Your task to perform on an android device: Search for asus rog on costco.com, select the first entry, add it to the cart, then select checkout. Image 0: 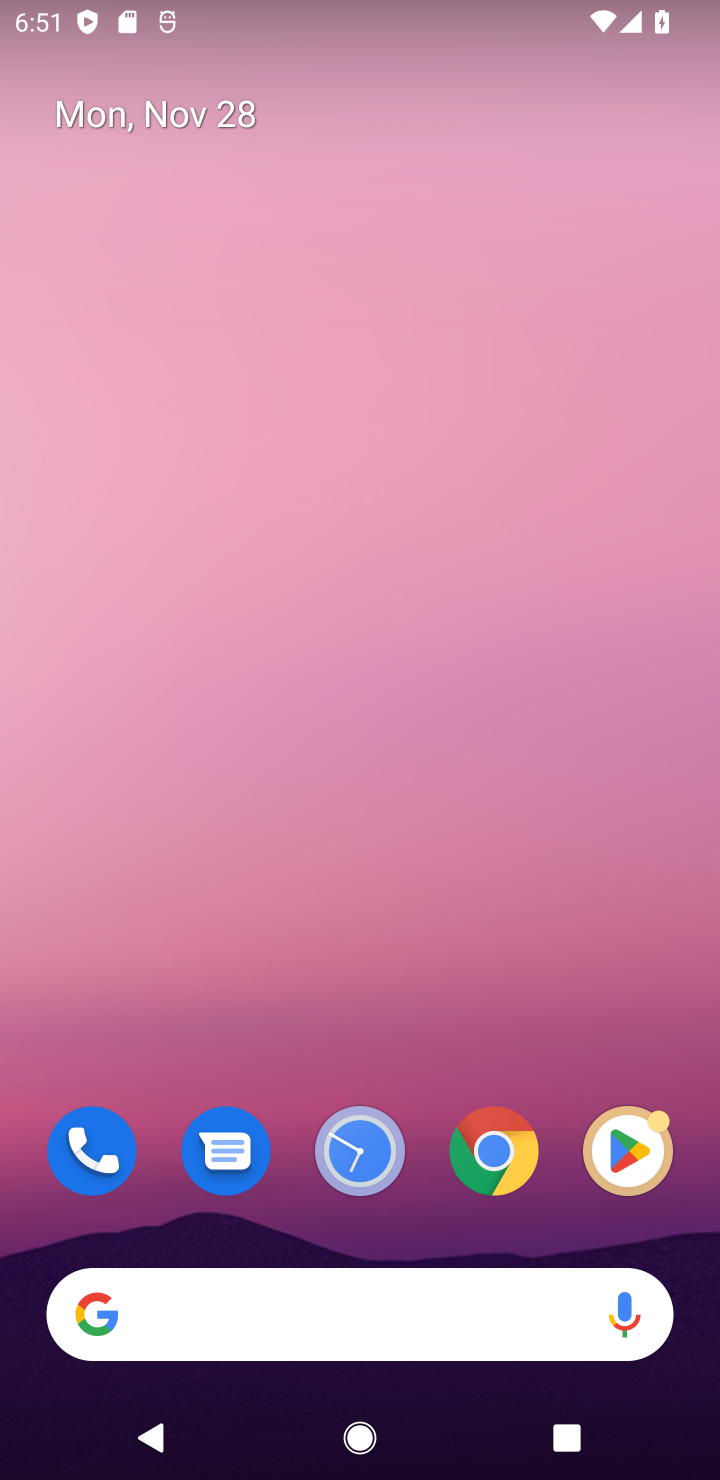
Step 0: click (324, 1357)
Your task to perform on an android device: Search for asus rog on costco.com, select the first entry, add it to the cart, then select checkout. Image 1: 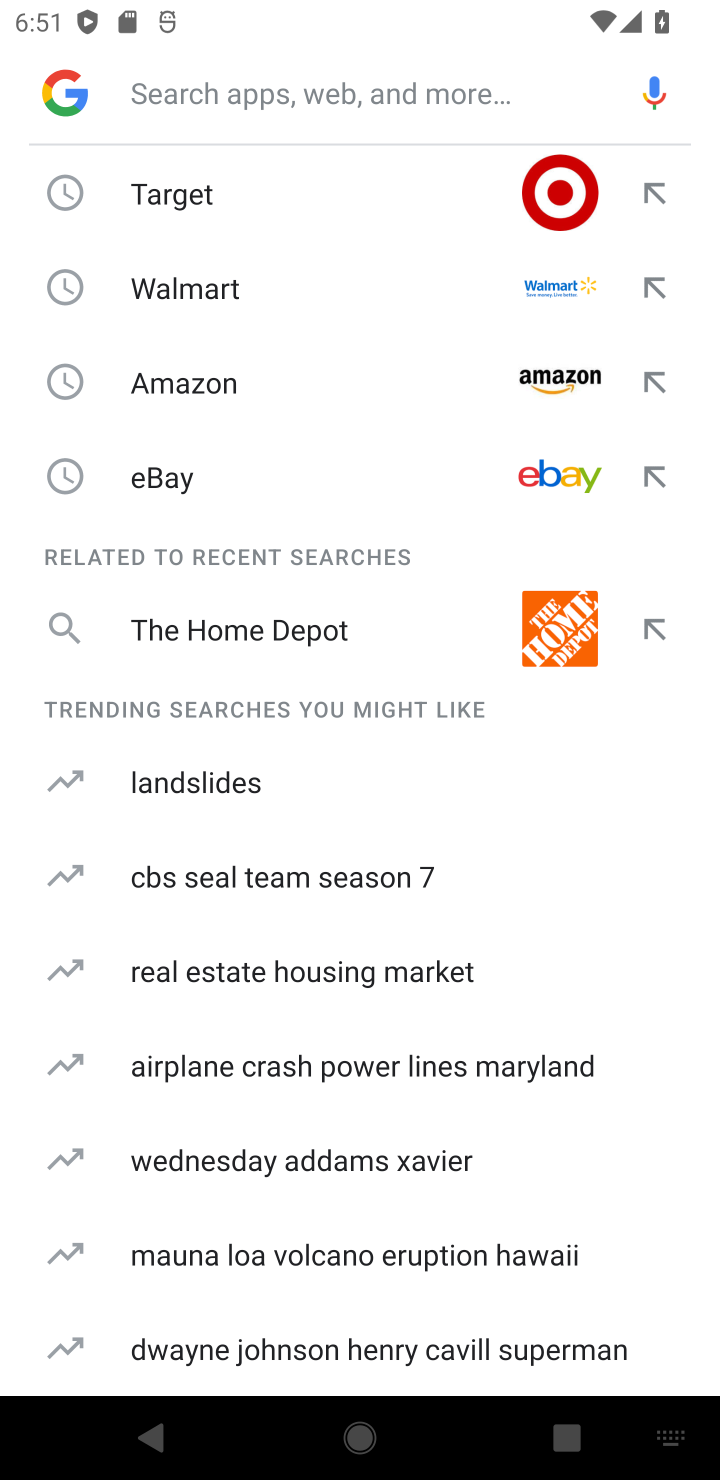
Step 1: type "costco.com"
Your task to perform on an android device: Search for asus rog on costco.com, select the first entry, add it to the cart, then select checkout. Image 2: 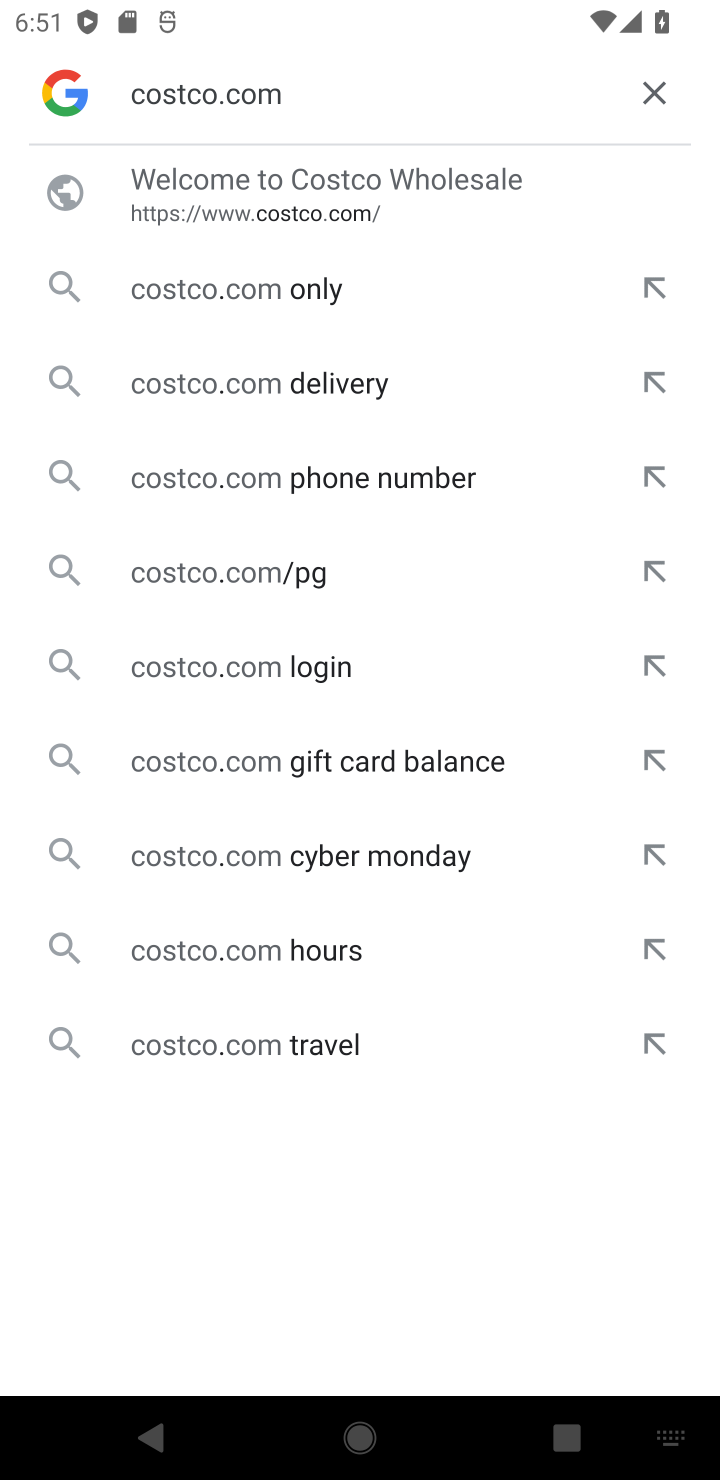
Step 2: click (157, 187)
Your task to perform on an android device: Search for asus rog on costco.com, select the first entry, add it to the cart, then select checkout. Image 3: 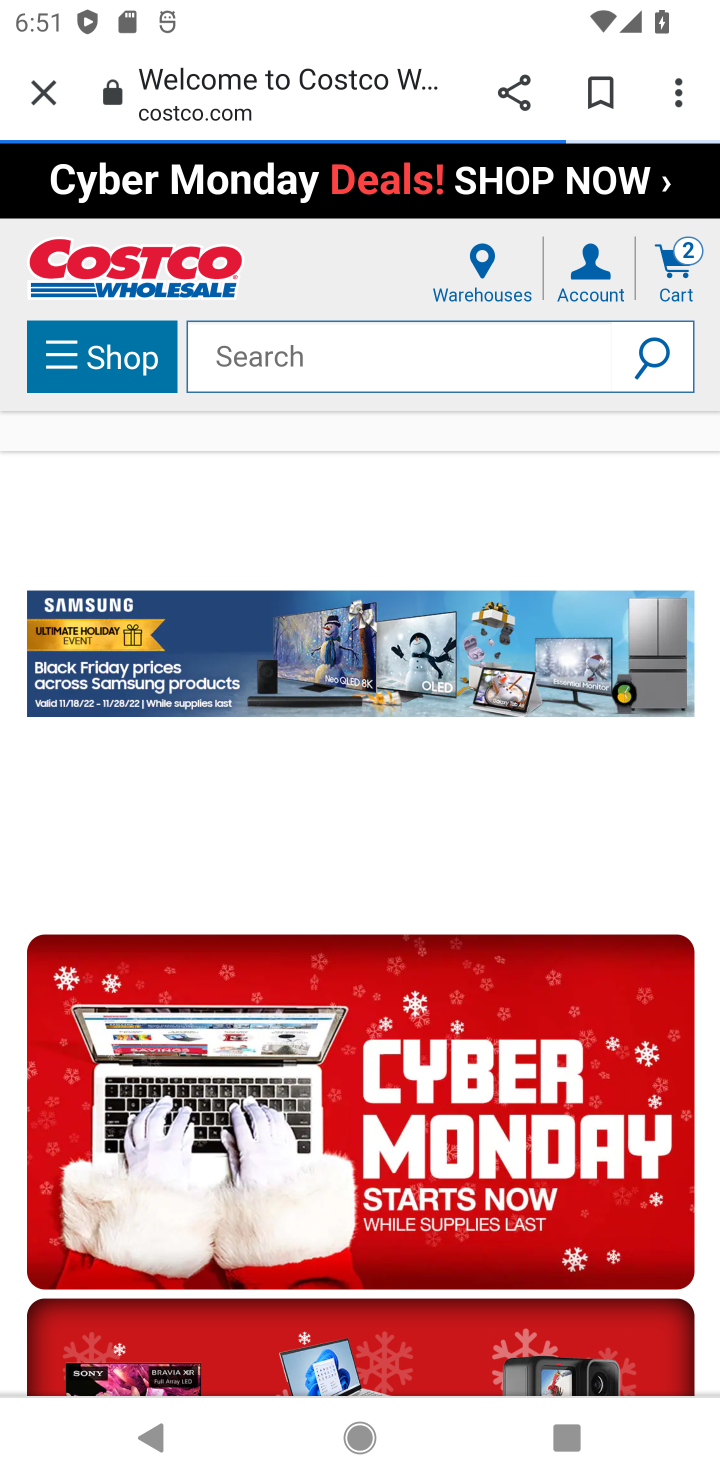
Step 3: click (254, 367)
Your task to perform on an android device: Search for asus rog on costco.com, select the first entry, add it to the cart, then select checkout. Image 4: 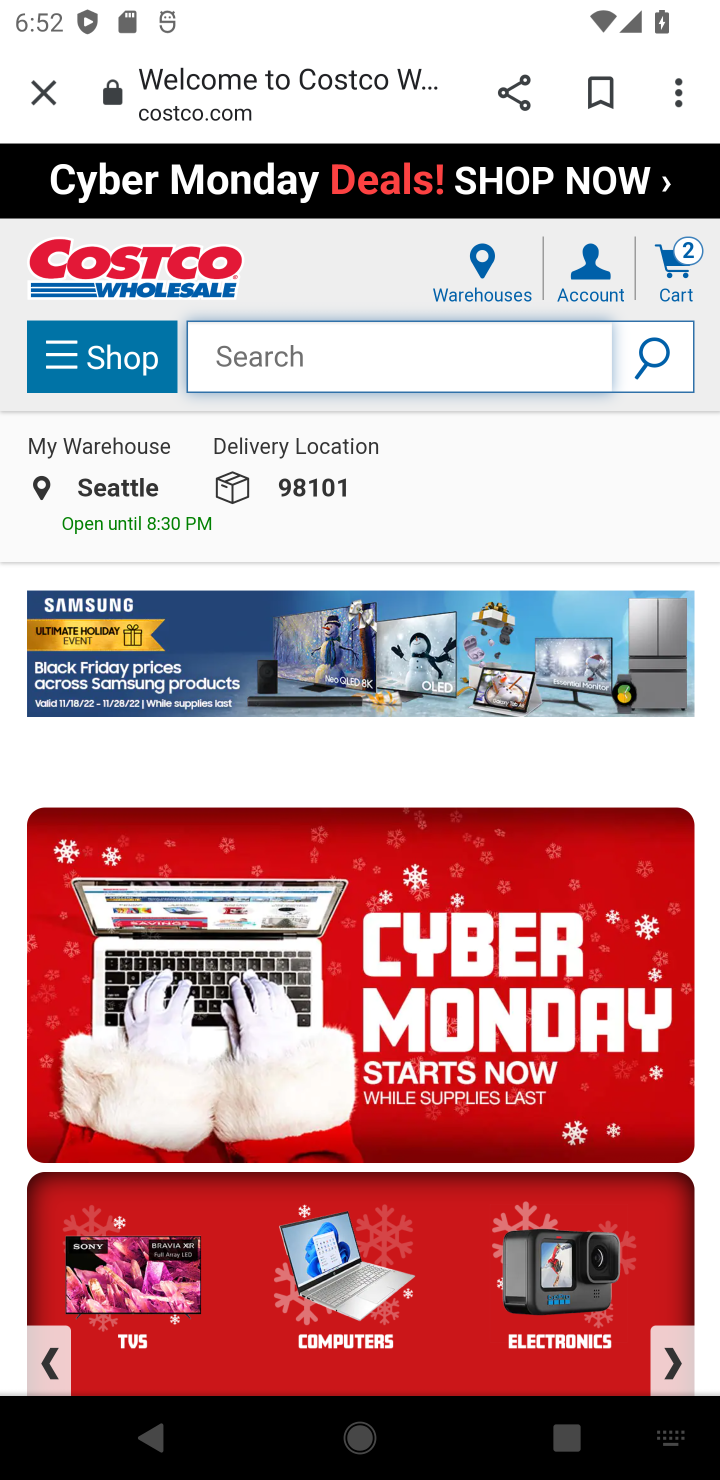
Step 4: type "asus rog"
Your task to perform on an android device: Search for asus rog on costco.com, select the first entry, add it to the cart, then select checkout. Image 5: 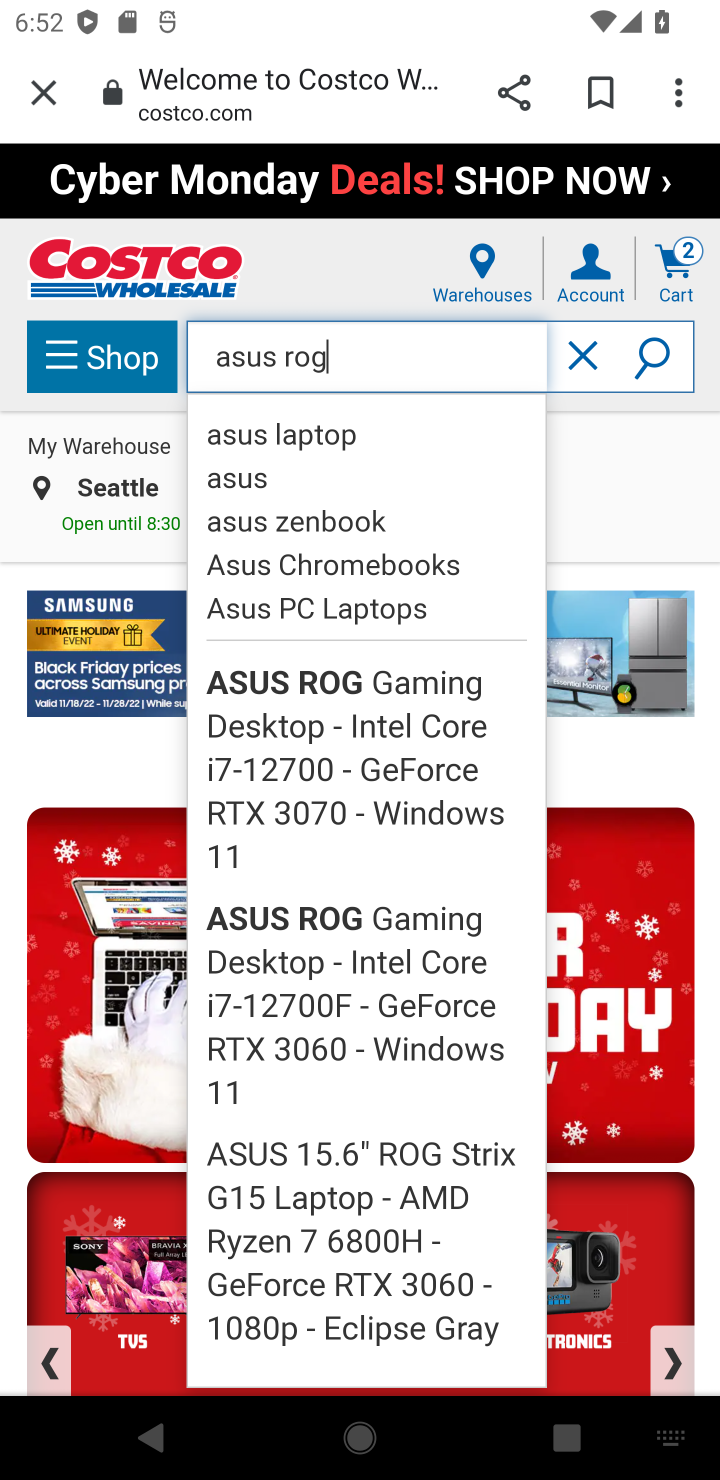
Step 5: click (672, 373)
Your task to perform on an android device: Search for asus rog on costco.com, select the first entry, add it to the cart, then select checkout. Image 6: 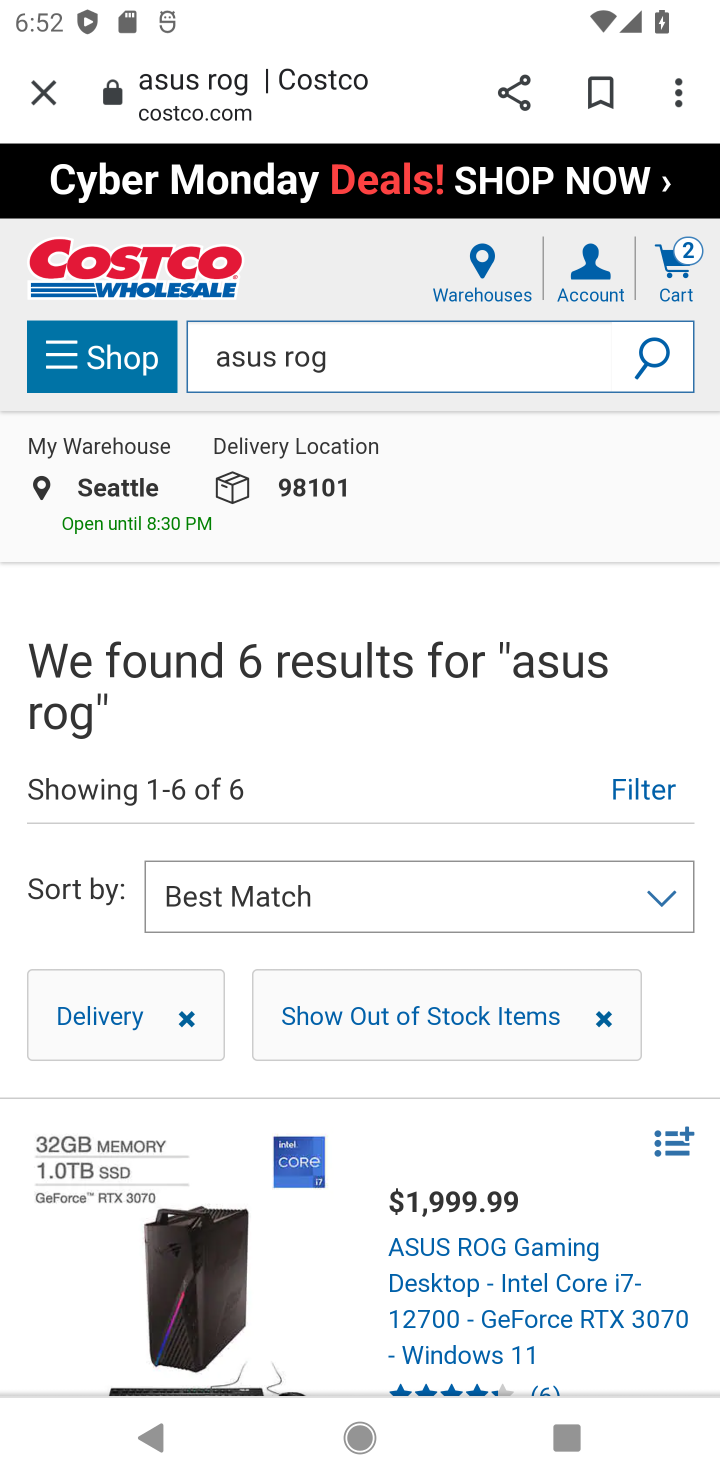
Step 6: click (462, 1253)
Your task to perform on an android device: Search for asus rog on costco.com, select the first entry, add it to the cart, then select checkout. Image 7: 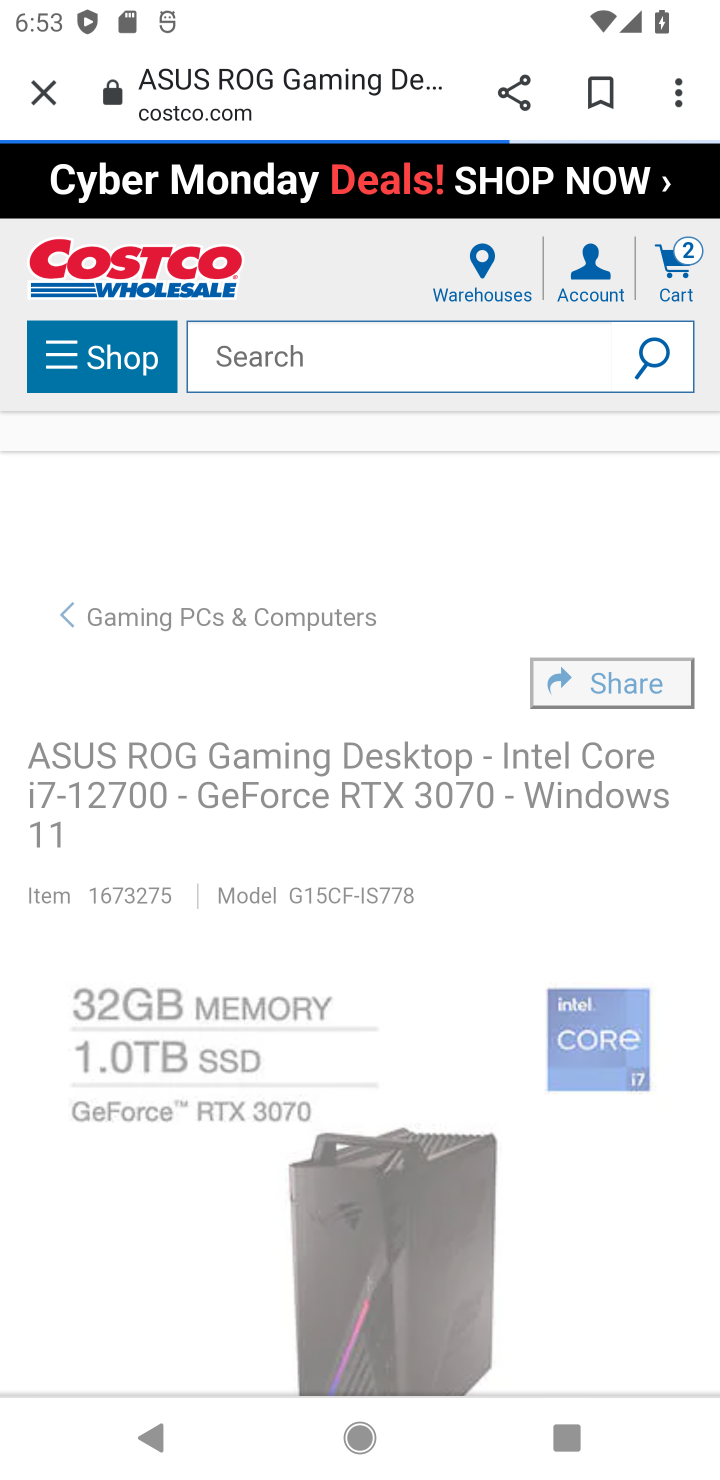
Step 7: drag from (612, 1224) to (529, 343)
Your task to perform on an android device: Search for asus rog on costco.com, select the first entry, add it to the cart, then select checkout. Image 8: 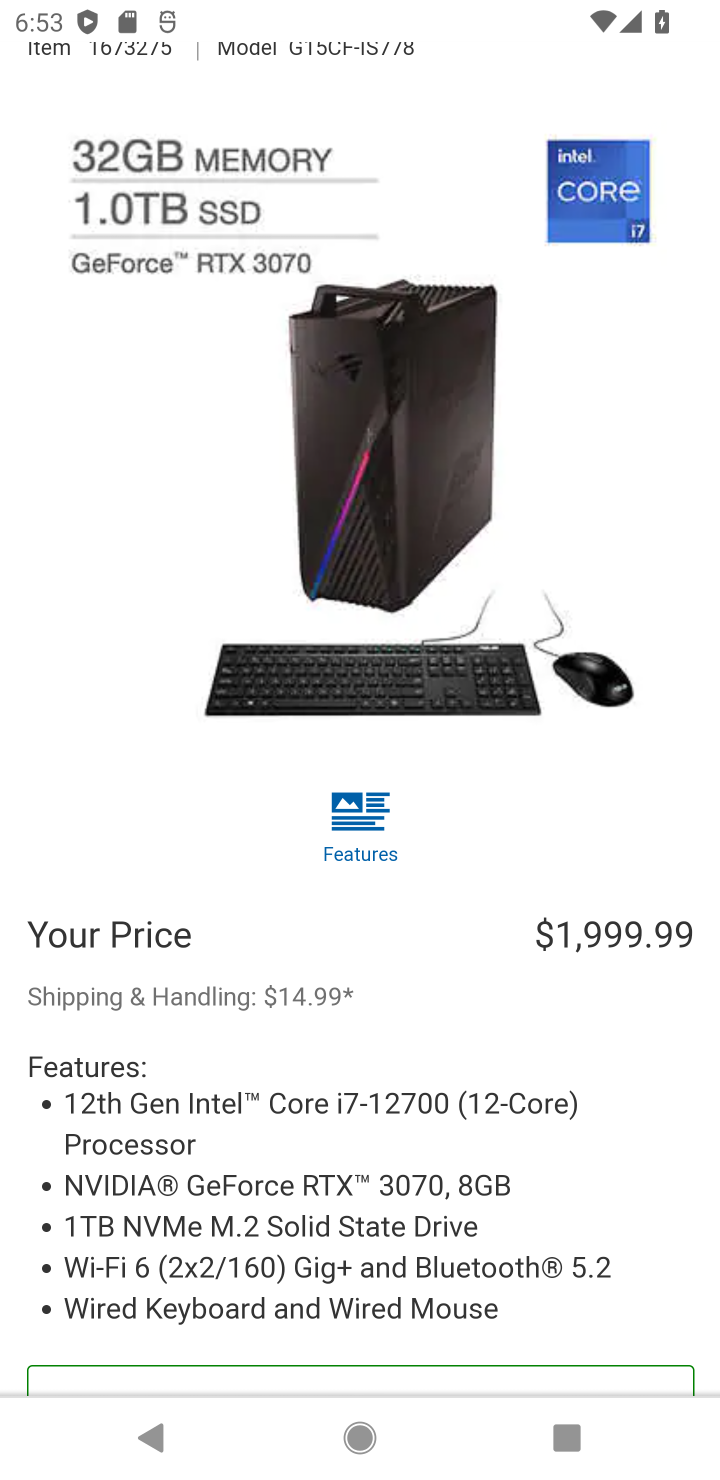
Step 8: drag from (642, 1168) to (552, 765)
Your task to perform on an android device: Search for asus rog on costco.com, select the first entry, add it to the cart, then select checkout. Image 9: 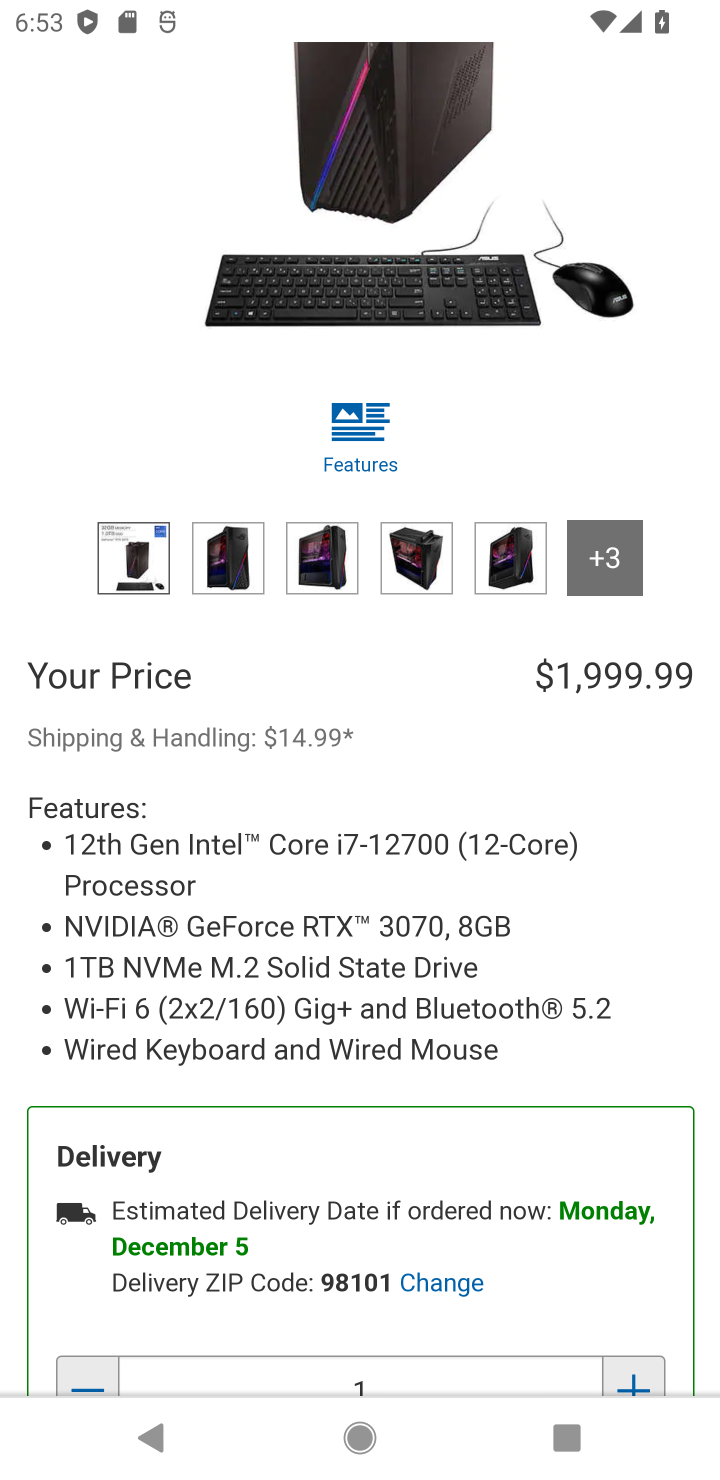
Step 9: drag from (528, 1074) to (494, 726)
Your task to perform on an android device: Search for asus rog on costco.com, select the first entry, add it to the cart, then select checkout. Image 10: 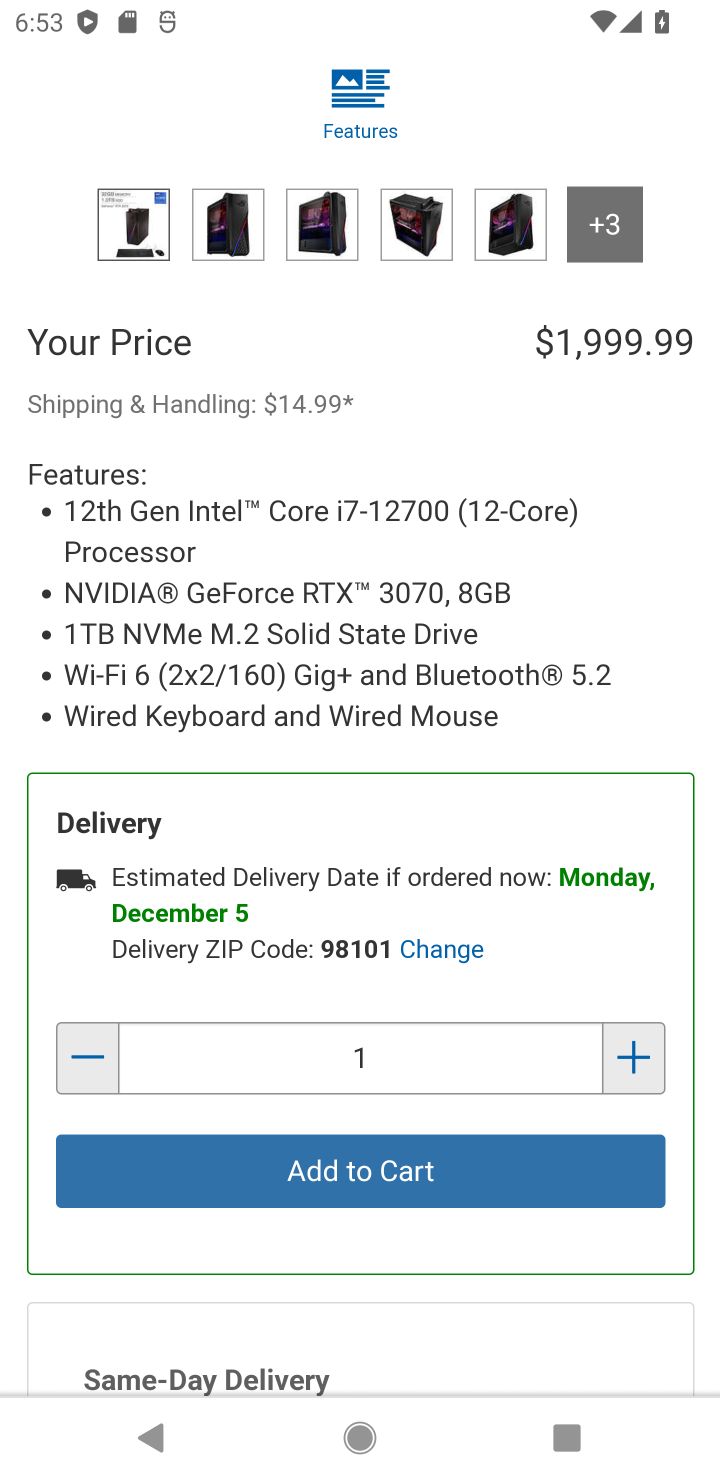
Step 10: click (455, 1192)
Your task to perform on an android device: Search for asus rog on costco.com, select the first entry, add it to the cart, then select checkout. Image 11: 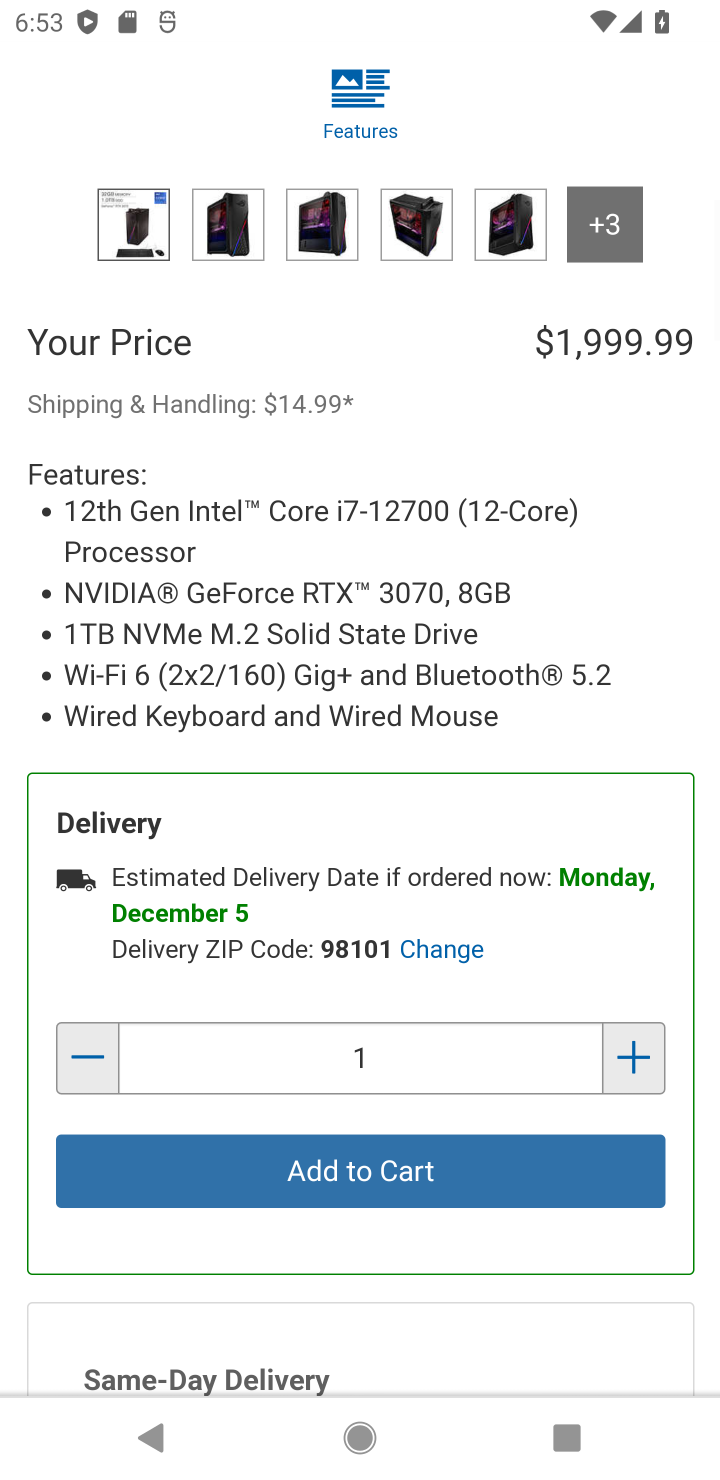
Step 11: task complete